Your task to perform on an android device: turn off notifications in google photos Image 0: 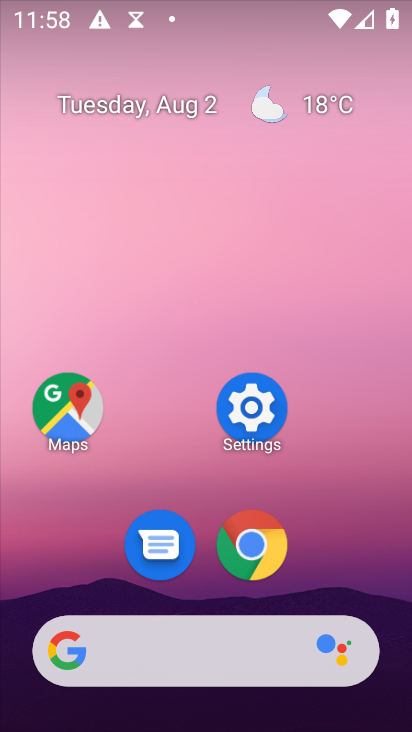
Step 0: drag from (173, 630) to (273, 148)
Your task to perform on an android device: turn off notifications in google photos Image 1: 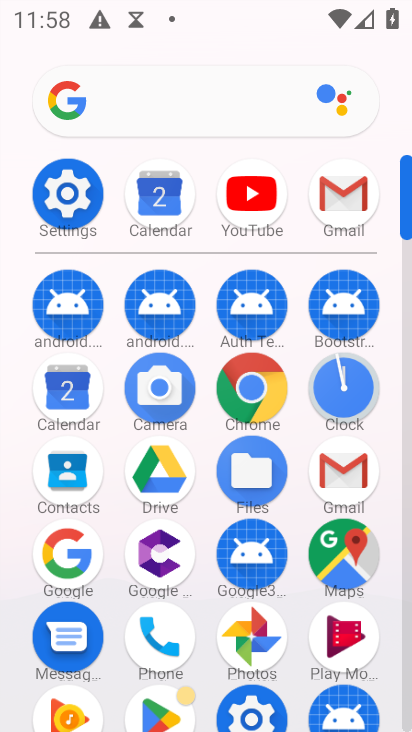
Step 1: click (247, 632)
Your task to perform on an android device: turn off notifications in google photos Image 2: 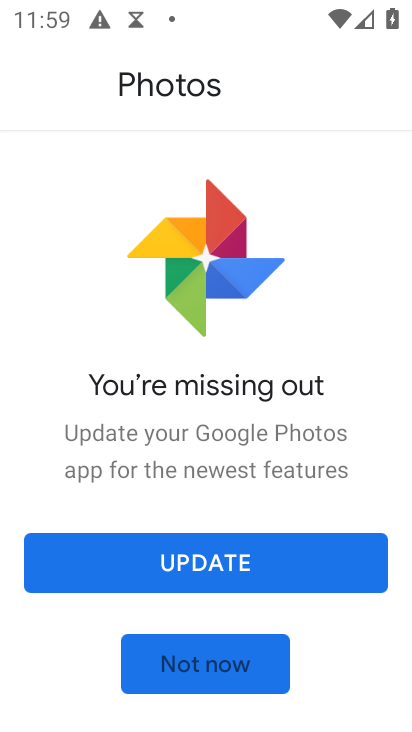
Step 2: click (219, 569)
Your task to perform on an android device: turn off notifications in google photos Image 3: 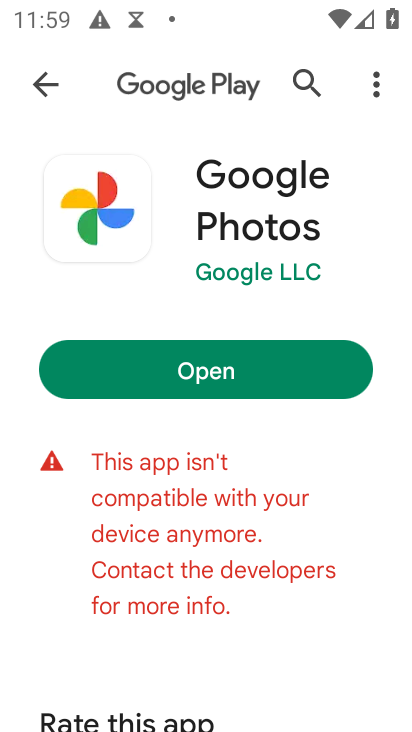
Step 3: task complete